Your task to perform on an android device: turn off airplane mode Image 0: 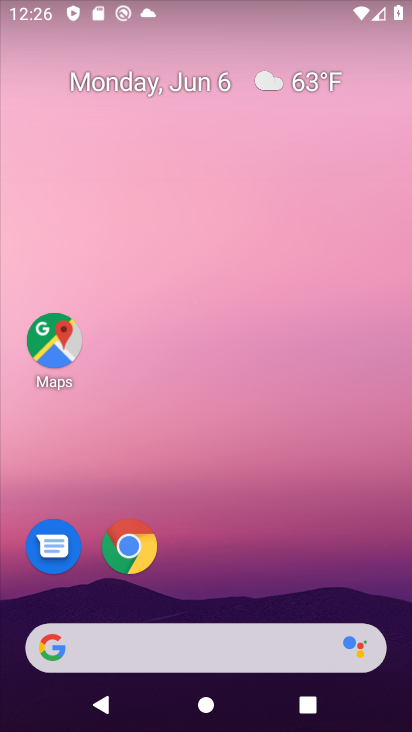
Step 0: press home button
Your task to perform on an android device: turn off airplane mode Image 1: 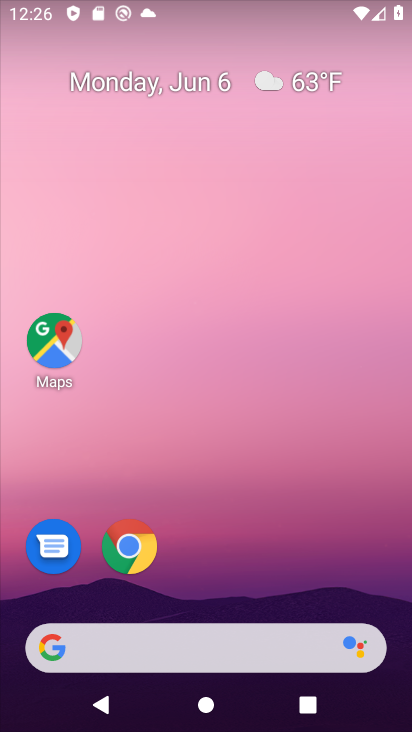
Step 1: drag from (46, 363) to (35, 0)
Your task to perform on an android device: turn off airplane mode Image 2: 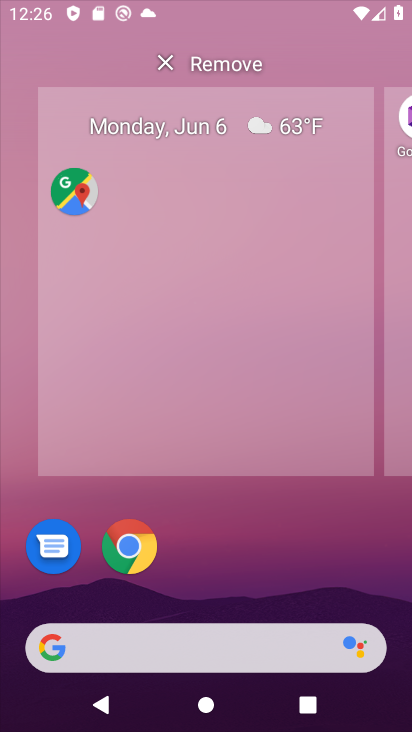
Step 2: click (270, 476)
Your task to perform on an android device: turn off airplane mode Image 3: 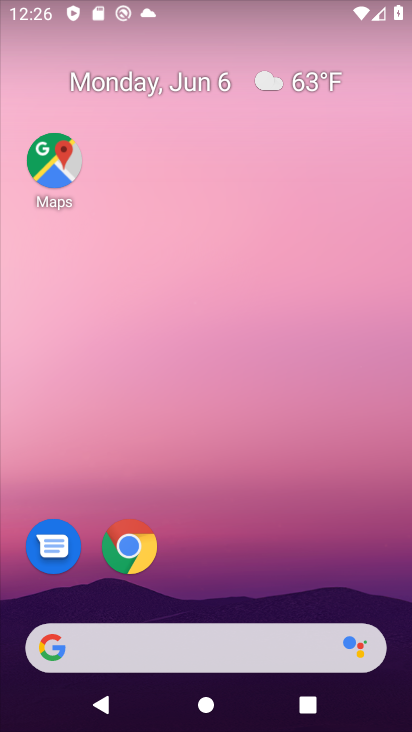
Step 3: drag from (262, 515) to (179, 0)
Your task to perform on an android device: turn off airplane mode Image 4: 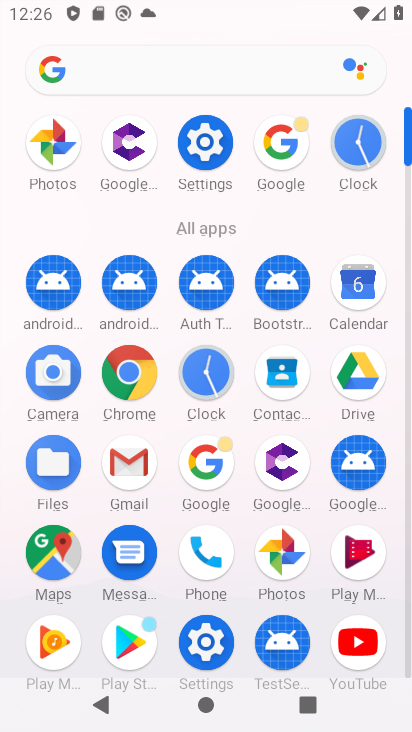
Step 4: click (225, 145)
Your task to perform on an android device: turn off airplane mode Image 5: 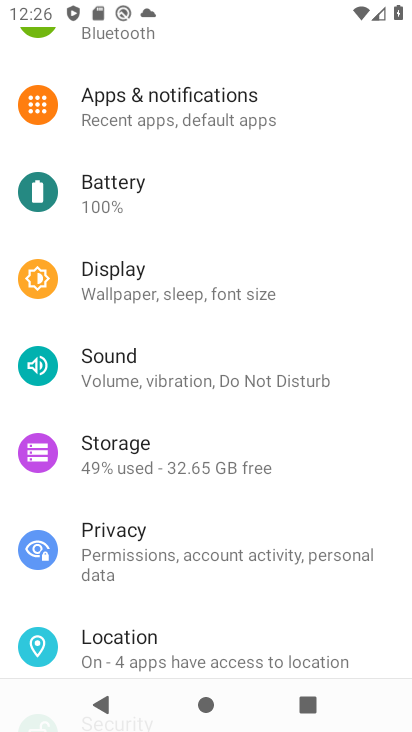
Step 5: drag from (117, 183) to (137, 636)
Your task to perform on an android device: turn off airplane mode Image 6: 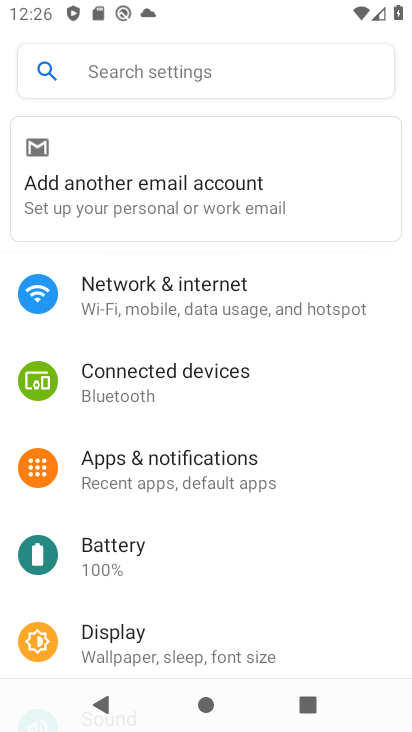
Step 6: click (161, 283)
Your task to perform on an android device: turn off airplane mode Image 7: 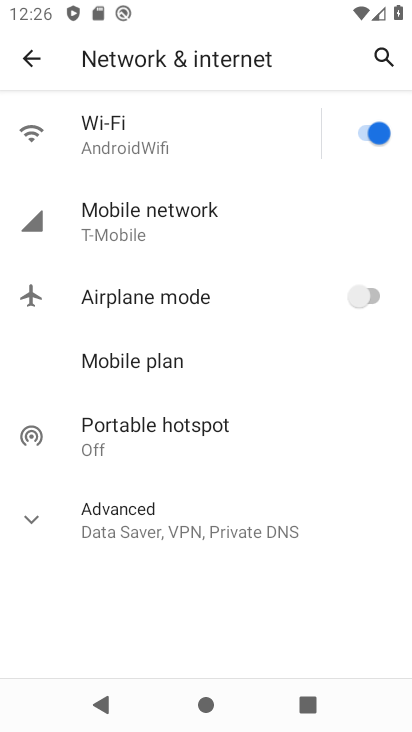
Step 7: task complete